Your task to perform on an android device: Open location settings Image 0: 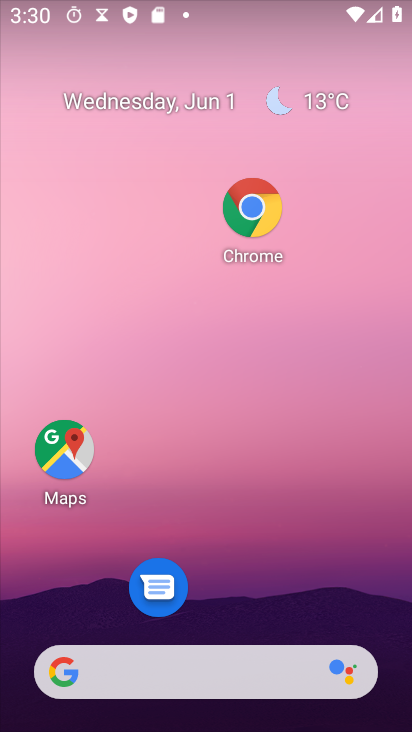
Step 0: drag from (289, 722) to (142, 270)
Your task to perform on an android device: Open location settings Image 1: 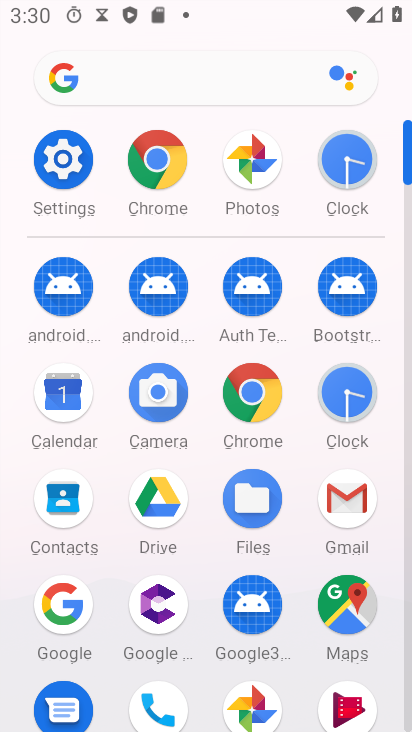
Step 1: click (56, 157)
Your task to perform on an android device: Open location settings Image 2: 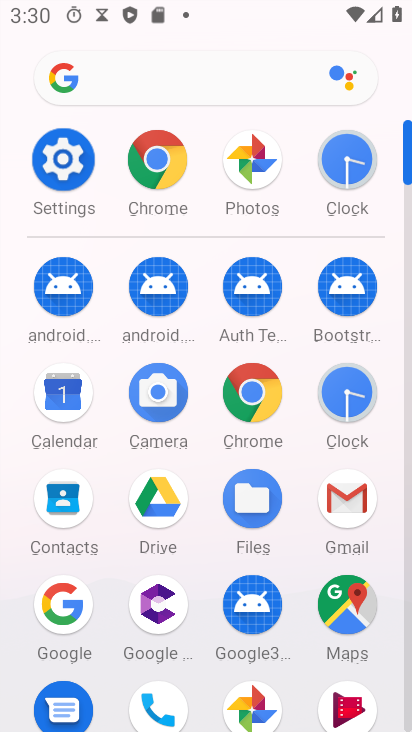
Step 2: click (56, 157)
Your task to perform on an android device: Open location settings Image 3: 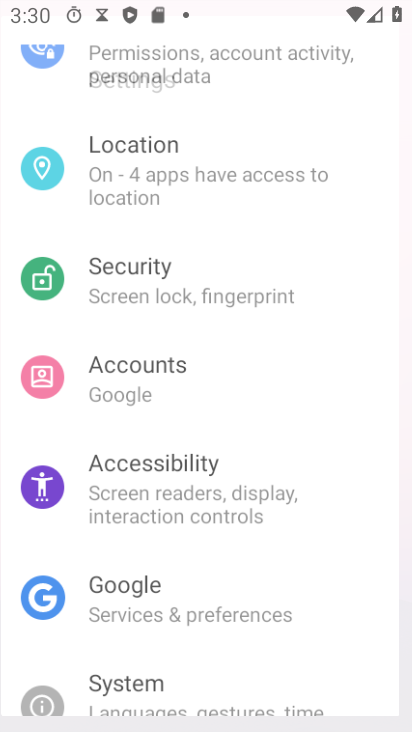
Step 3: click (56, 151)
Your task to perform on an android device: Open location settings Image 4: 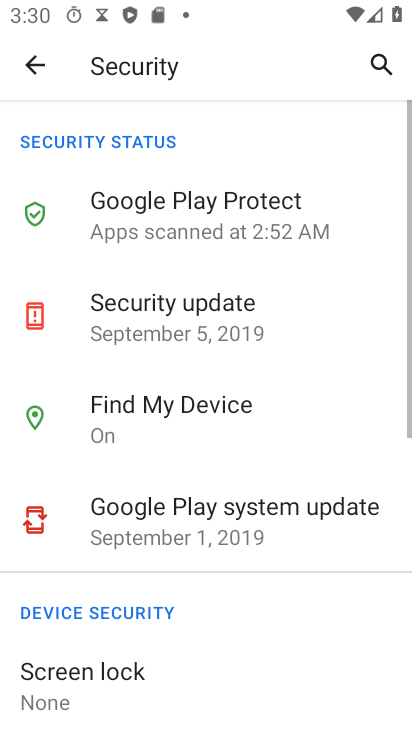
Step 4: click (25, 57)
Your task to perform on an android device: Open location settings Image 5: 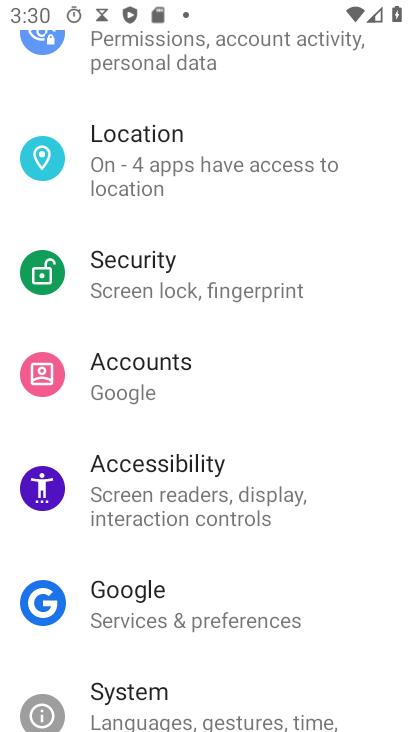
Step 5: click (147, 179)
Your task to perform on an android device: Open location settings Image 6: 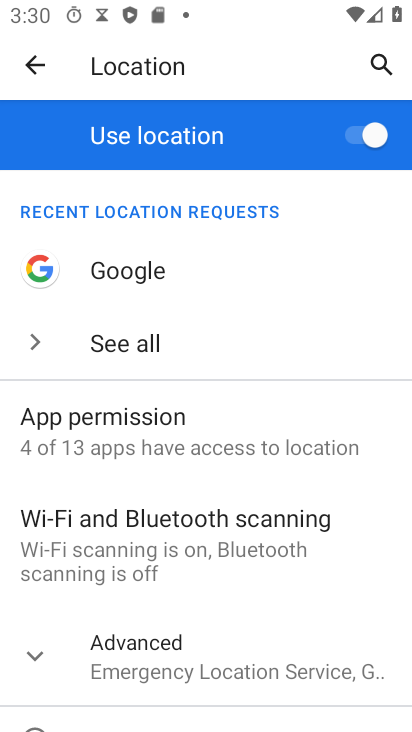
Step 6: task complete